Your task to perform on an android device: Open privacy settings Image 0: 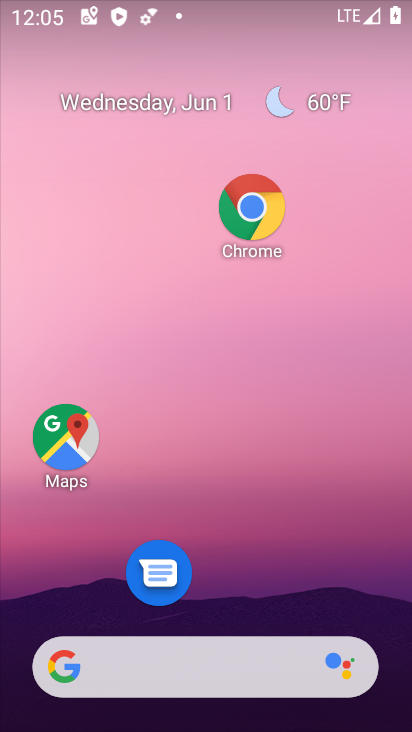
Step 0: drag from (221, 595) to (174, 123)
Your task to perform on an android device: Open privacy settings Image 1: 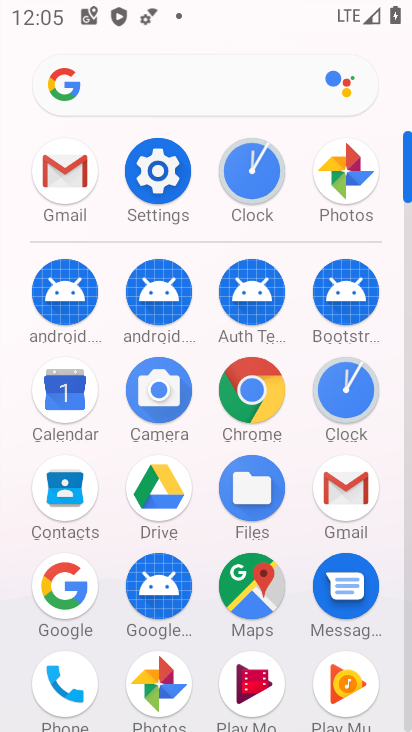
Step 1: click (166, 159)
Your task to perform on an android device: Open privacy settings Image 2: 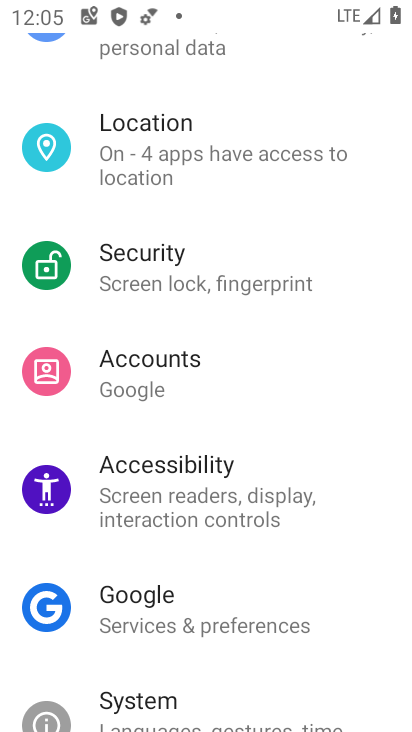
Step 2: drag from (217, 215) to (225, 517)
Your task to perform on an android device: Open privacy settings Image 3: 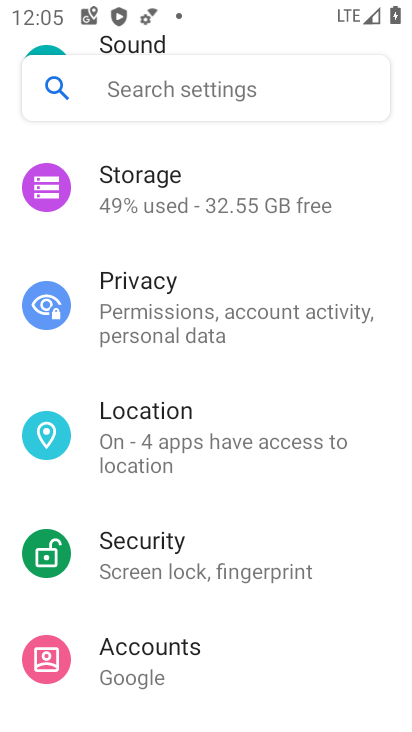
Step 3: click (219, 323)
Your task to perform on an android device: Open privacy settings Image 4: 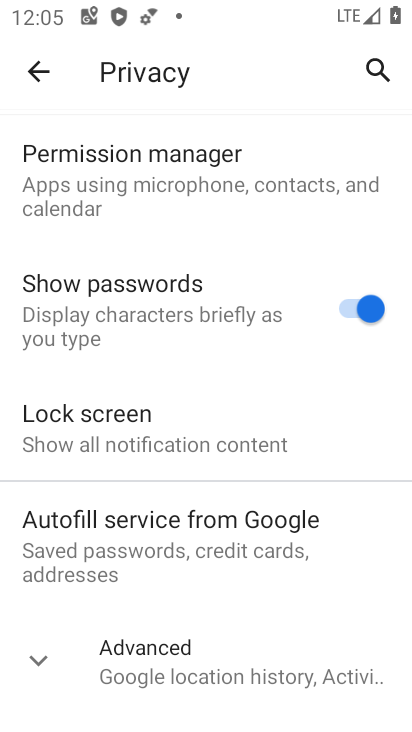
Step 4: task complete